Your task to perform on an android device: turn off sleep mode Image 0: 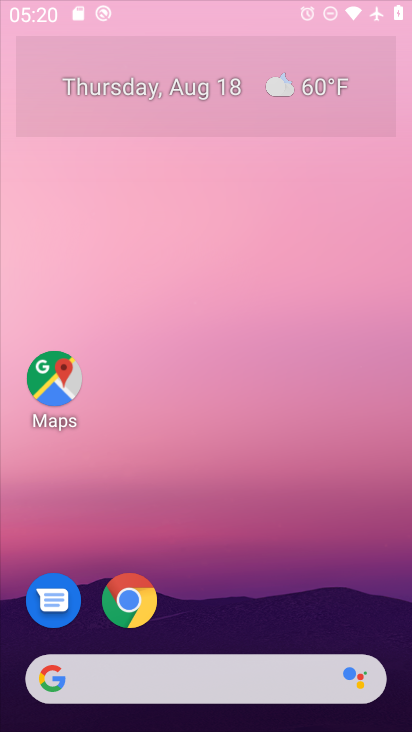
Step 0: press home button
Your task to perform on an android device: turn off sleep mode Image 1: 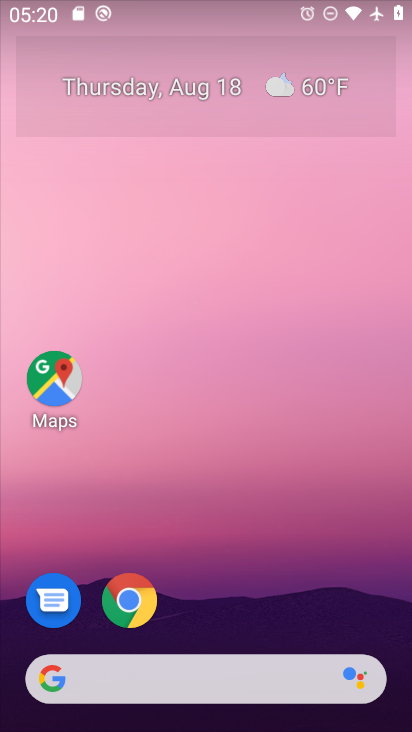
Step 1: drag from (234, 630) to (211, 39)
Your task to perform on an android device: turn off sleep mode Image 2: 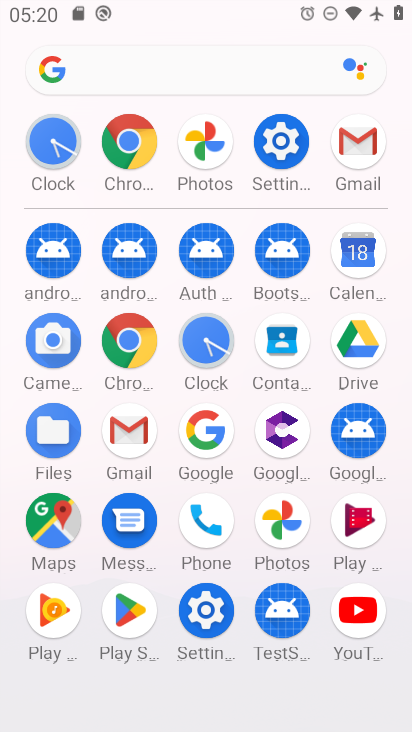
Step 2: click (275, 142)
Your task to perform on an android device: turn off sleep mode Image 3: 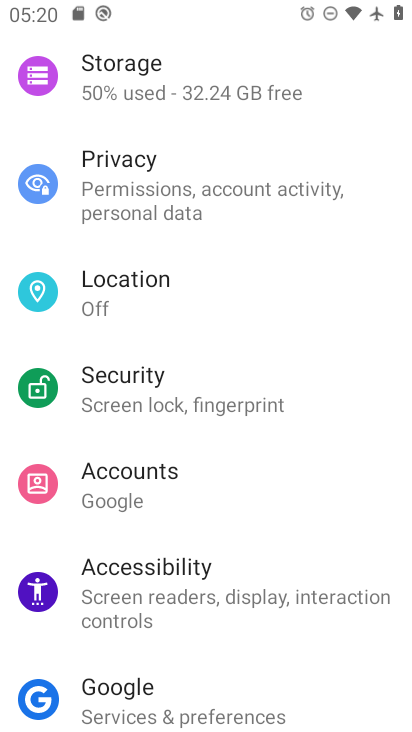
Step 3: drag from (290, 141) to (298, 699)
Your task to perform on an android device: turn off sleep mode Image 4: 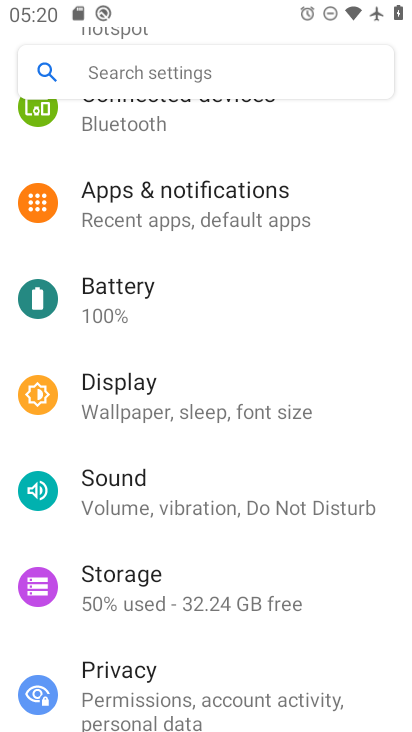
Step 4: click (121, 407)
Your task to perform on an android device: turn off sleep mode Image 5: 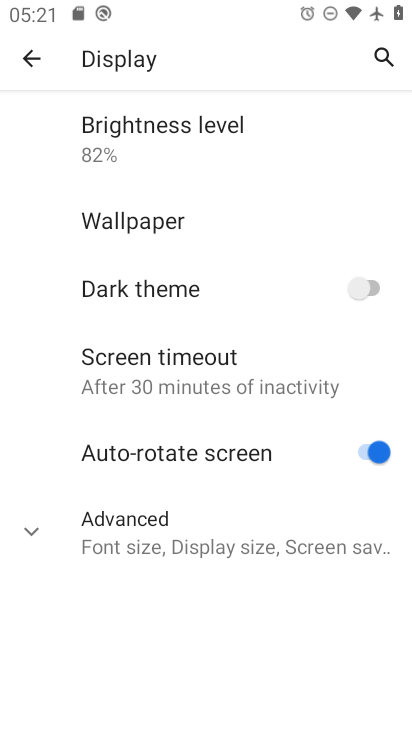
Step 5: task complete